Your task to perform on an android device: search for starred emails in the gmail app Image 0: 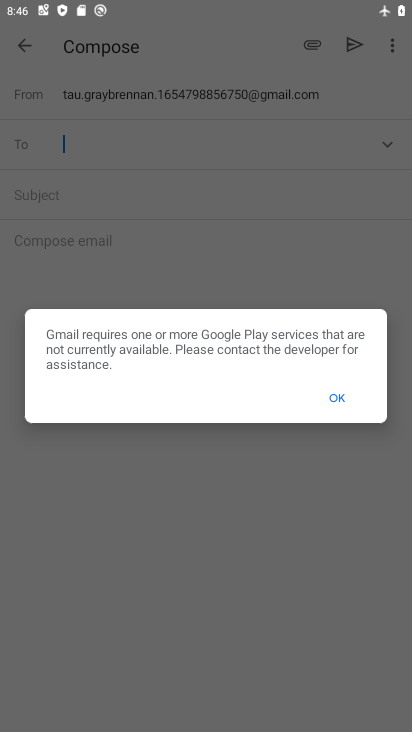
Step 0: press home button
Your task to perform on an android device: search for starred emails in the gmail app Image 1: 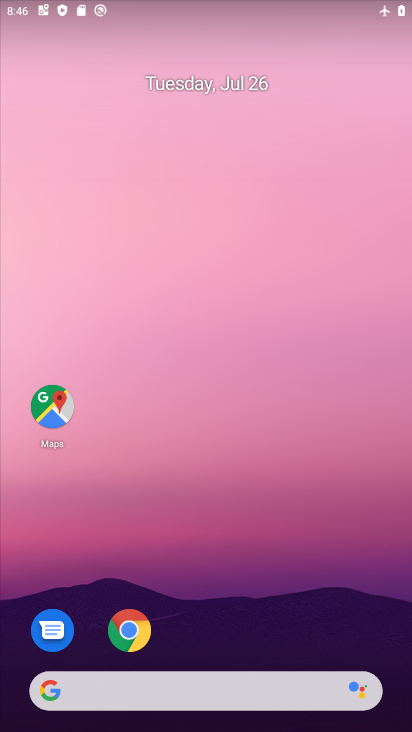
Step 1: drag from (243, 657) to (224, 140)
Your task to perform on an android device: search for starred emails in the gmail app Image 2: 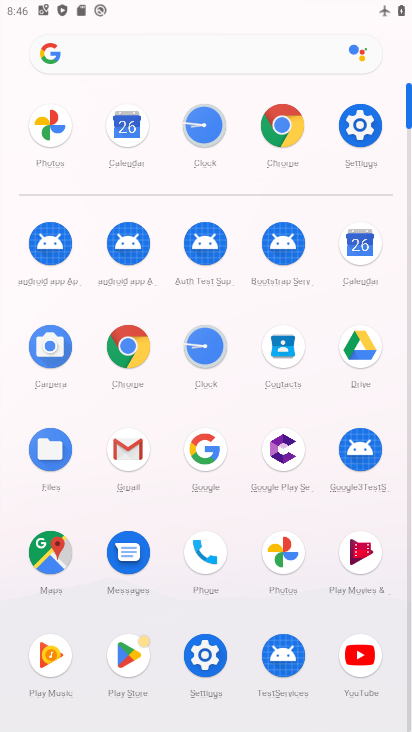
Step 2: click (139, 465)
Your task to perform on an android device: search for starred emails in the gmail app Image 3: 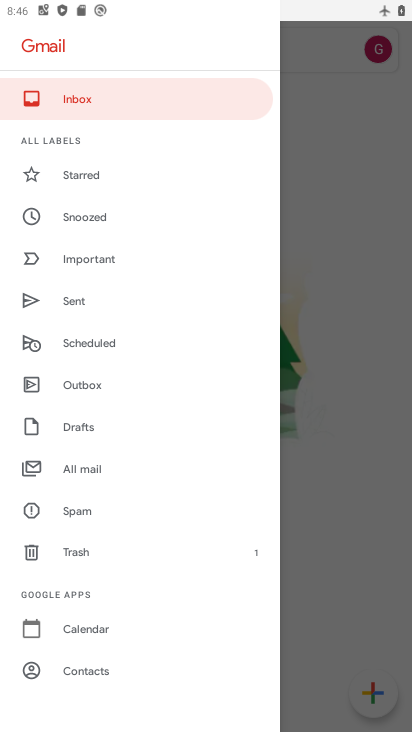
Step 3: click (94, 180)
Your task to perform on an android device: search for starred emails in the gmail app Image 4: 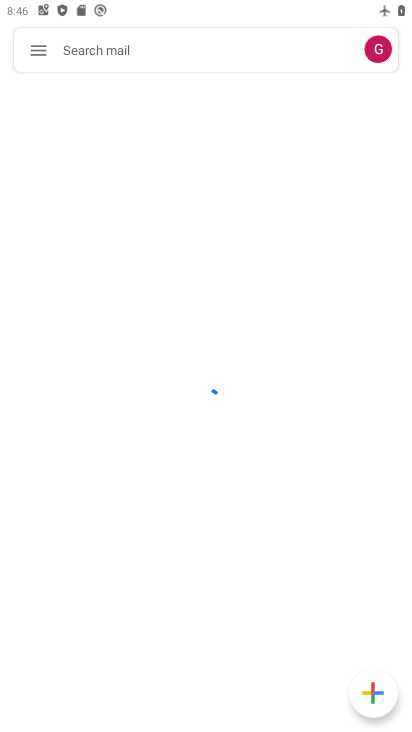
Step 4: task complete